Your task to perform on an android device: change your default location settings in chrome Image 0: 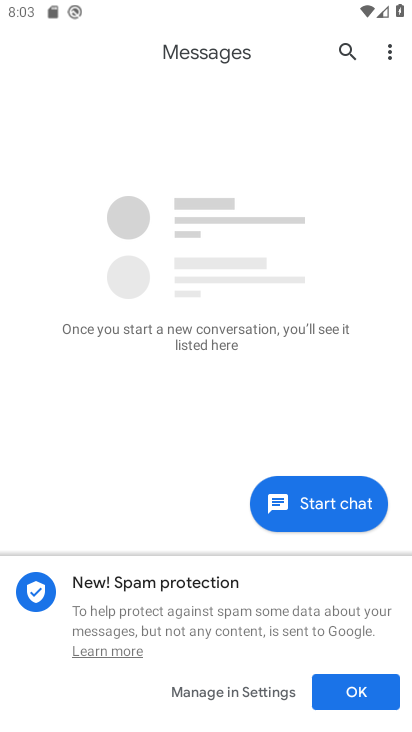
Step 0: press back button
Your task to perform on an android device: change your default location settings in chrome Image 1: 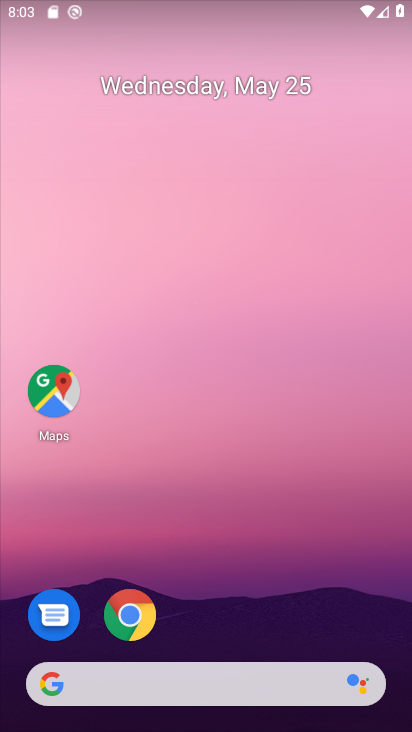
Step 1: drag from (212, 451) to (213, 26)
Your task to perform on an android device: change your default location settings in chrome Image 2: 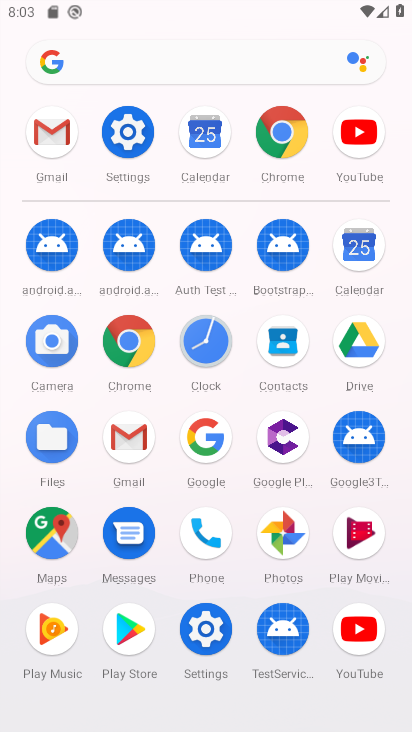
Step 2: drag from (2, 577) to (14, 197)
Your task to perform on an android device: change your default location settings in chrome Image 3: 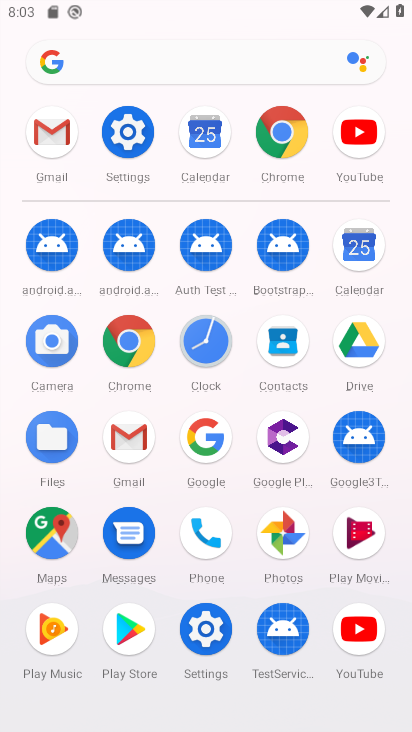
Step 3: click (120, 340)
Your task to perform on an android device: change your default location settings in chrome Image 4: 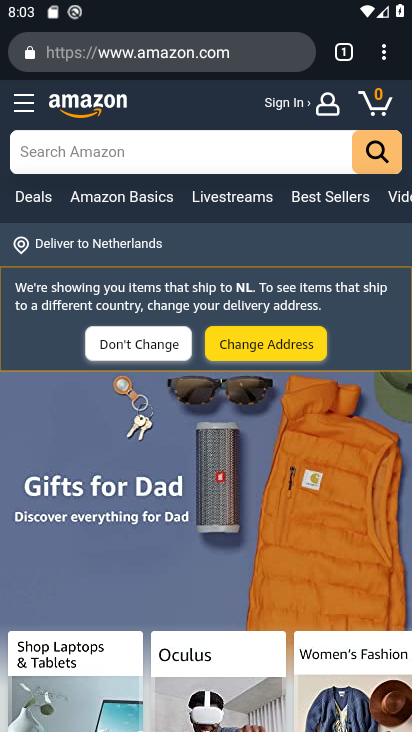
Step 4: drag from (384, 51) to (208, 614)
Your task to perform on an android device: change your default location settings in chrome Image 5: 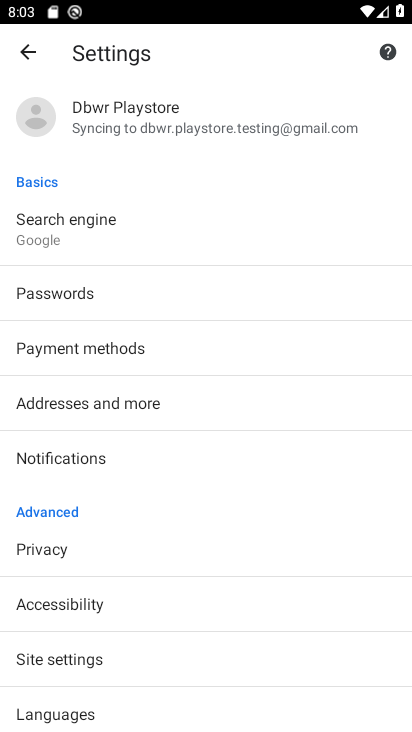
Step 5: drag from (169, 627) to (193, 177)
Your task to perform on an android device: change your default location settings in chrome Image 6: 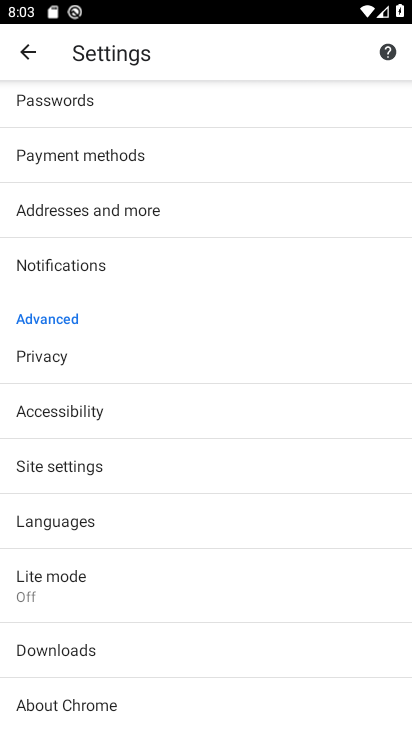
Step 6: click (100, 464)
Your task to perform on an android device: change your default location settings in chrome Image 7: 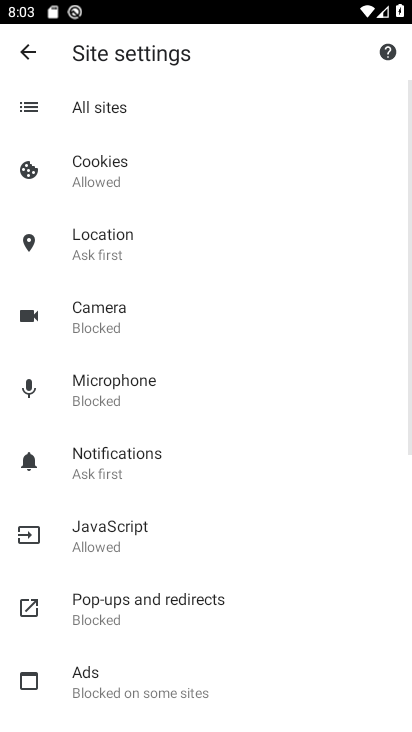
Step 7: click (131, 239)
Your task to perform on an android device: change your default location settings in chrome Image 8: 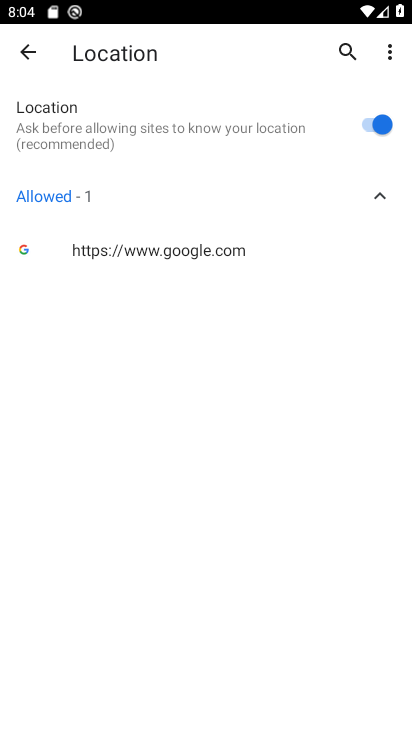
Step 8: task complete